Your task to perform on an android device: open app "Mercado Libre" (install if not already installed) and enter user name: "tolerating@yahoo.com" and password: "Kepler" Image 0: 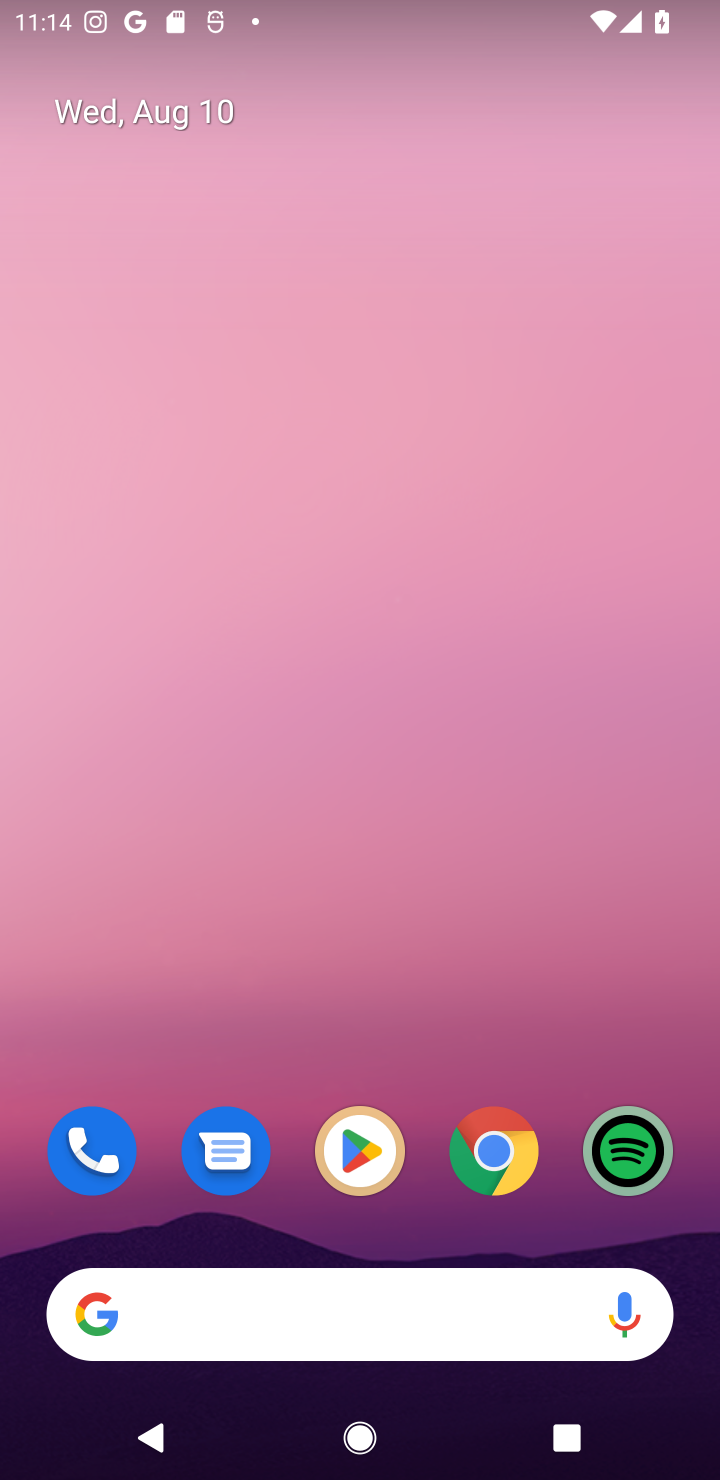
Step 0: click (373, 1179)
Your task to perform on an android device: open app "Mercado Libre" (install if not already installed) and enter user name: "tolerating@yahoo.com" and password: "Kepler" Image 1: 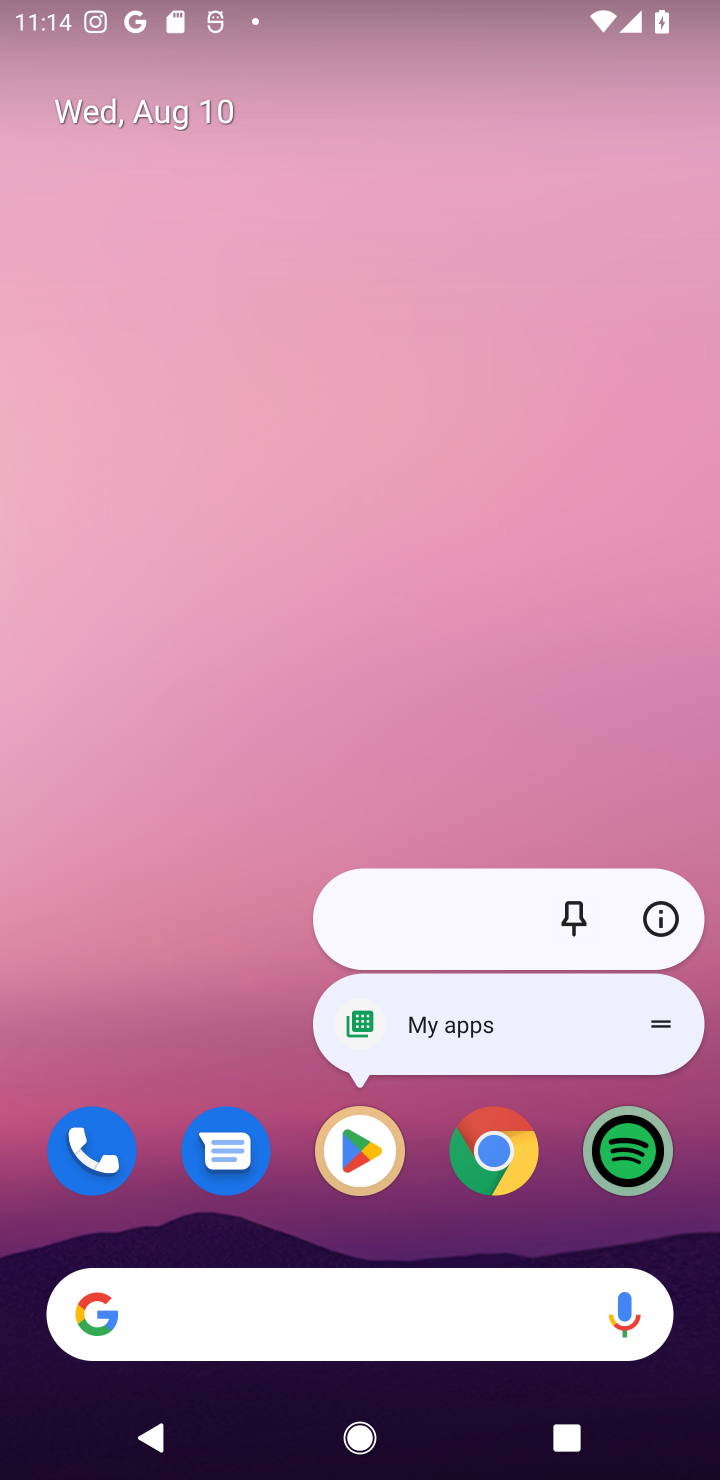
Step 1: click (361, 1156)
Your task to perform on an android device: open app "Mercado Libre" (install if not already installed) and enter user name: "tolerating@yahoo.com" and password: "Kepler" Image 2: 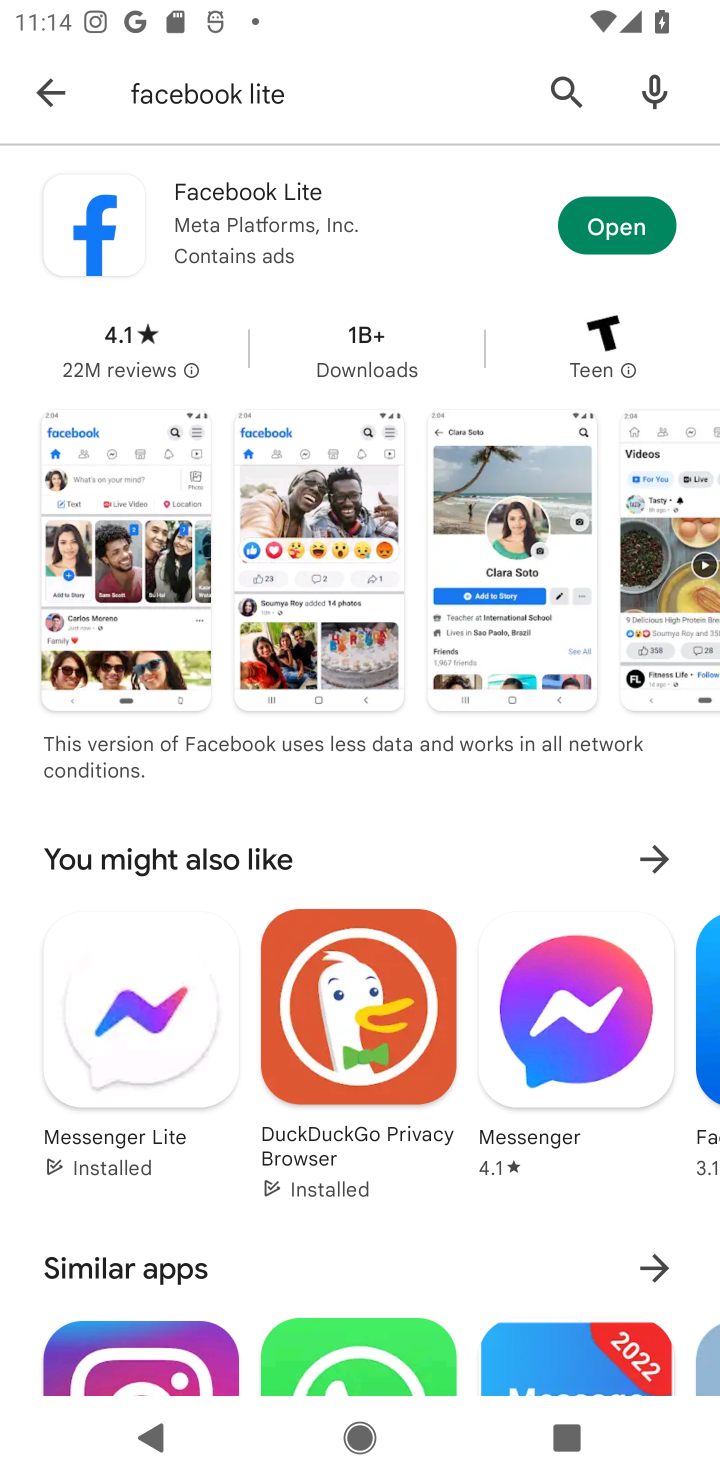
Step 2: click (580, 103)
Your task to perform on an android device: open app "Mercado Libre" (install if not already installed) and enter user name: "tolerating@yahoo.com" and password: "Kepler" Image 3: 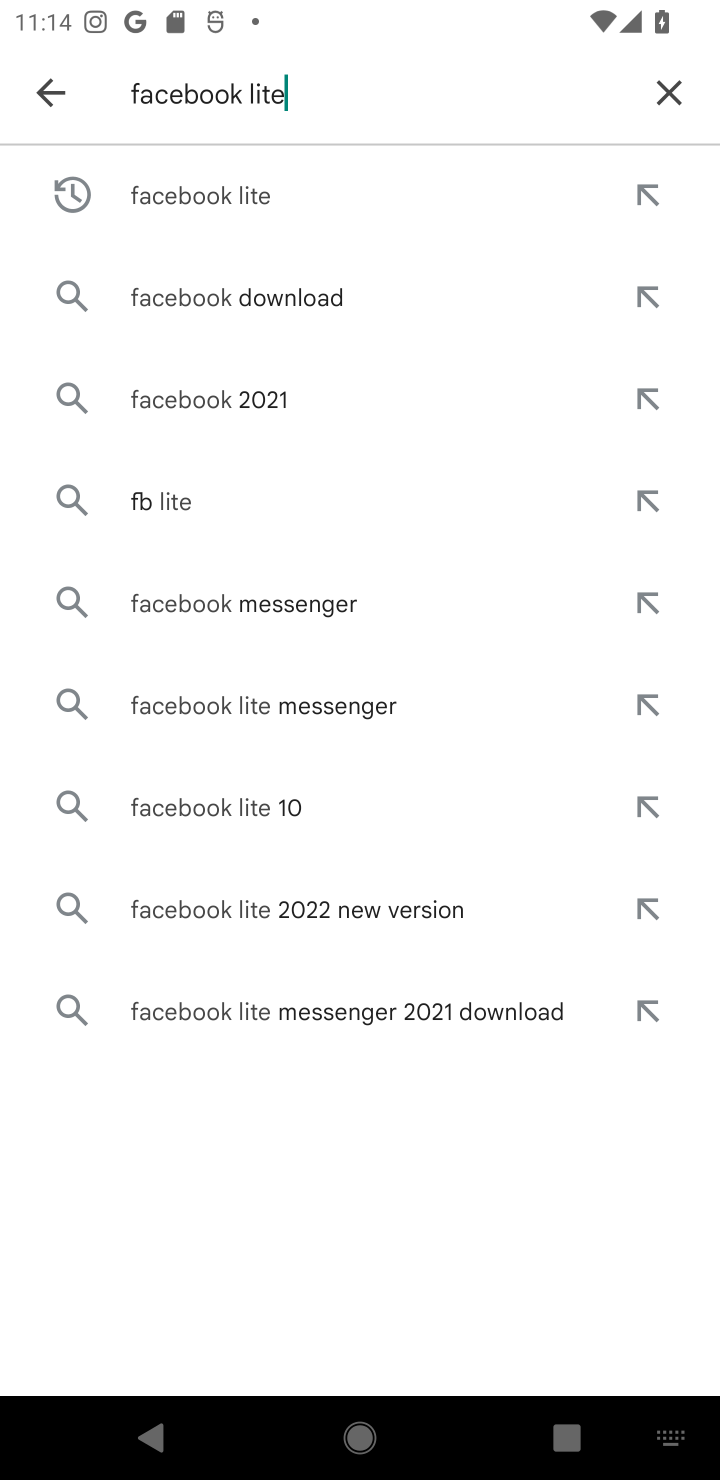
Step 3: click (667, 87)
Your task to perform on an android device: open app "Mercado Libre" (install if not already installed) and enter user name: "tolerating@yahoo.com" and password: "Kepler" Image 4: 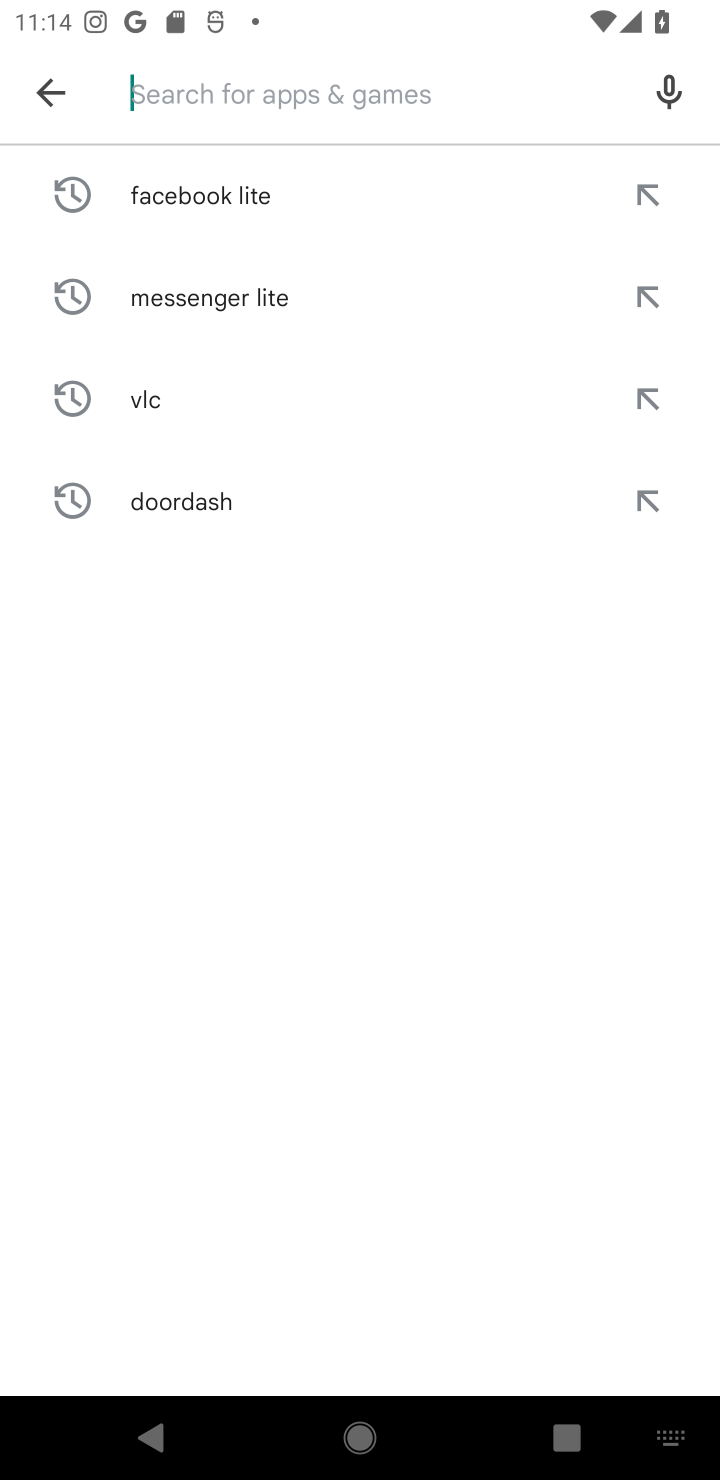
Step 4: click (390, 84)
Your task to perform on an android device: open app "Mercado Libre" (install if not already installed) and enter user name: "tolerating@yahoo.com" and password: "Kepler" Image 5: 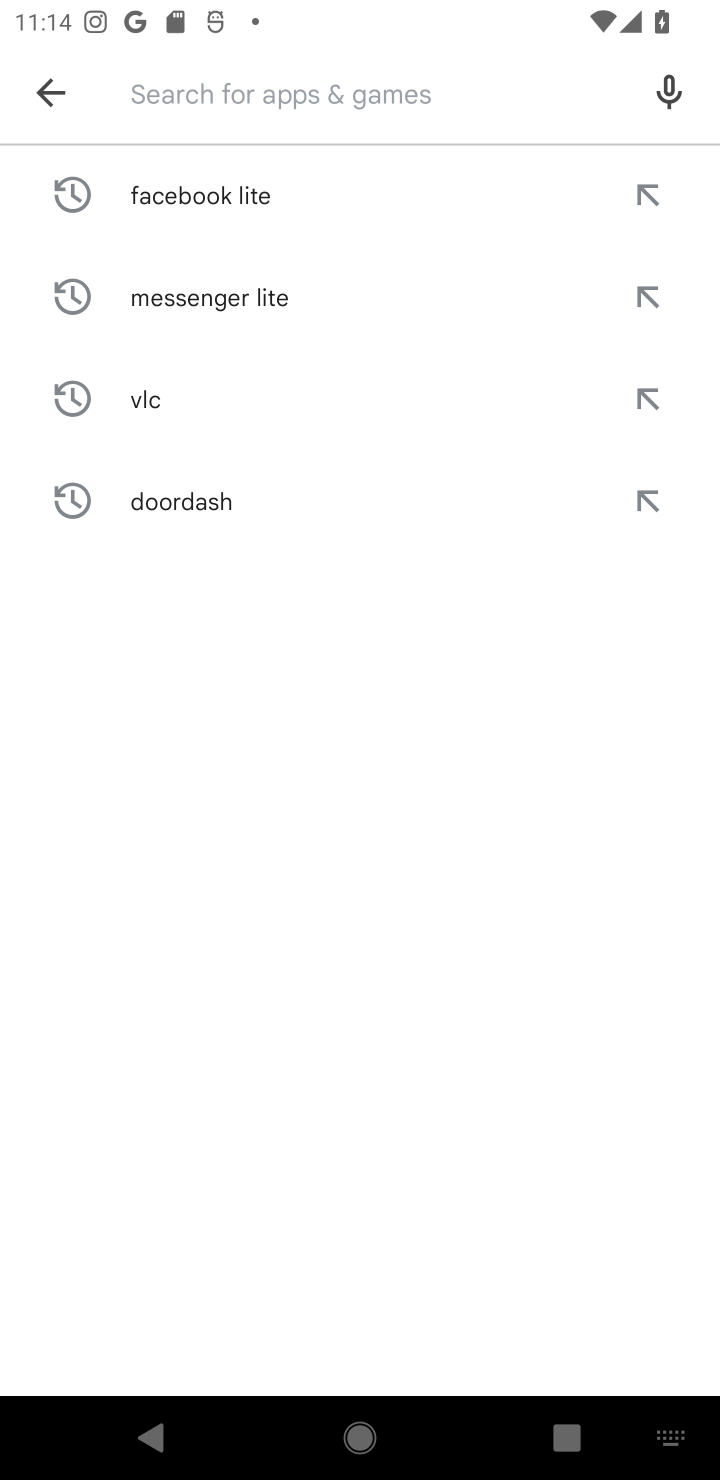
Step 5: click (225, 94)
Your task to perform on an android device: open app "Mercado Libre" (install if not already installed) and enter user name: "tolerating@yahoo.com" and password: "Kepler" Image 6: 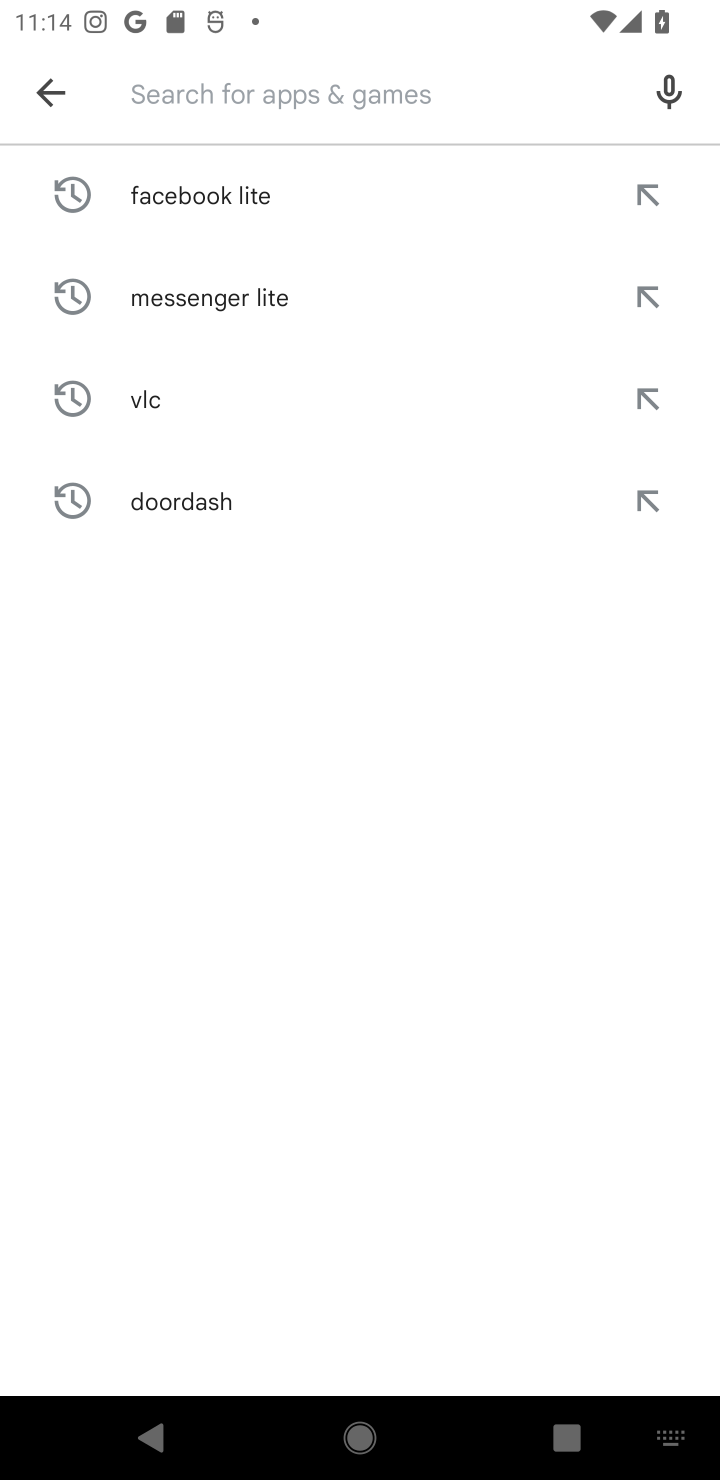
Step 6: type "Mercado Libre"
Your task to perform on an android device: open app "Mercado Libre" (install if not already installed) and enter user name: "tolerating@yahoo.com" and password: "Kepler" Image 7: 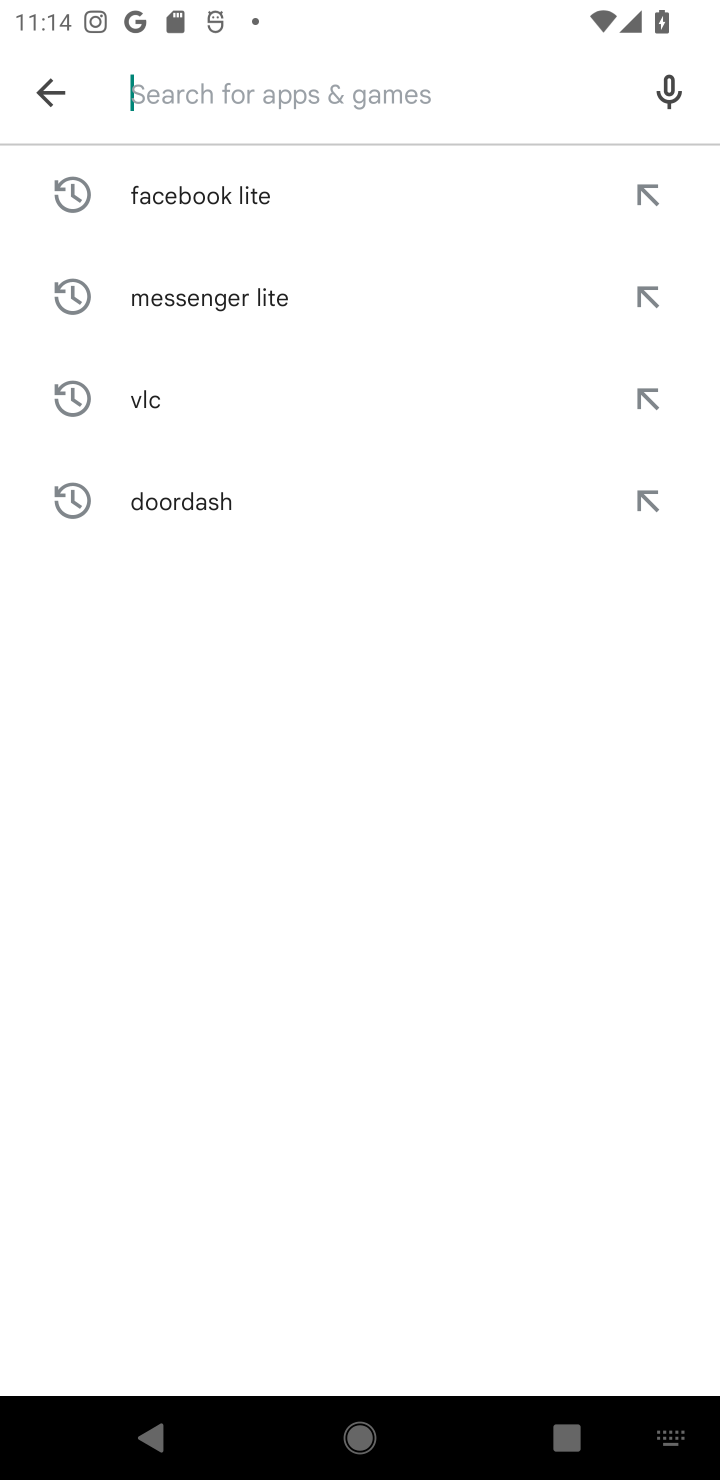
Step 7: click (157, 807)
Your task to perform on an android device: open app "Mercado Libre" (install if not already installed) and enter user name: "tolerating@yahoo.com" and password: "Kepler" Image 8: 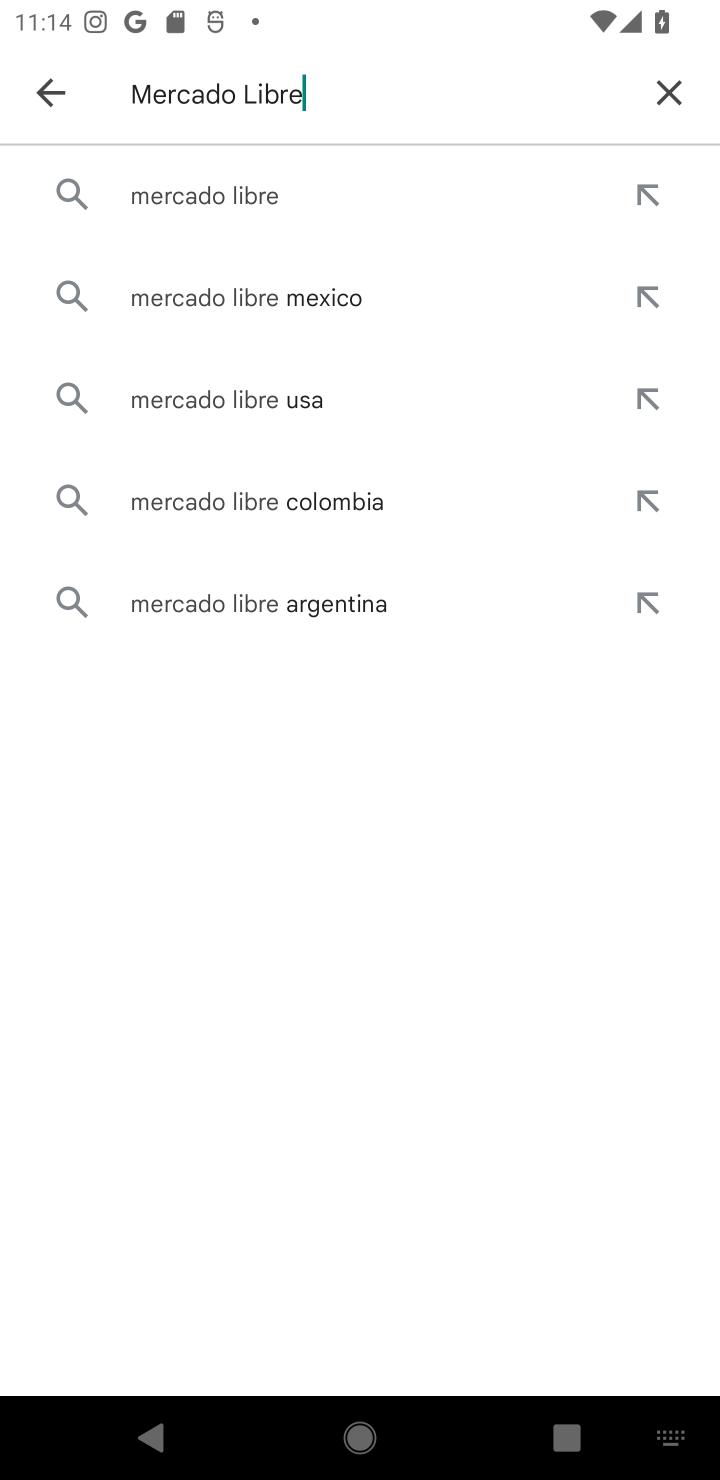
Step 8: click (265, 205)
Your task to perform on an android device: open app "Mercado Libre" (install if not already installed) and enter user name: "tolerating@yahoo.com" and password: "Kepler" Image 9: 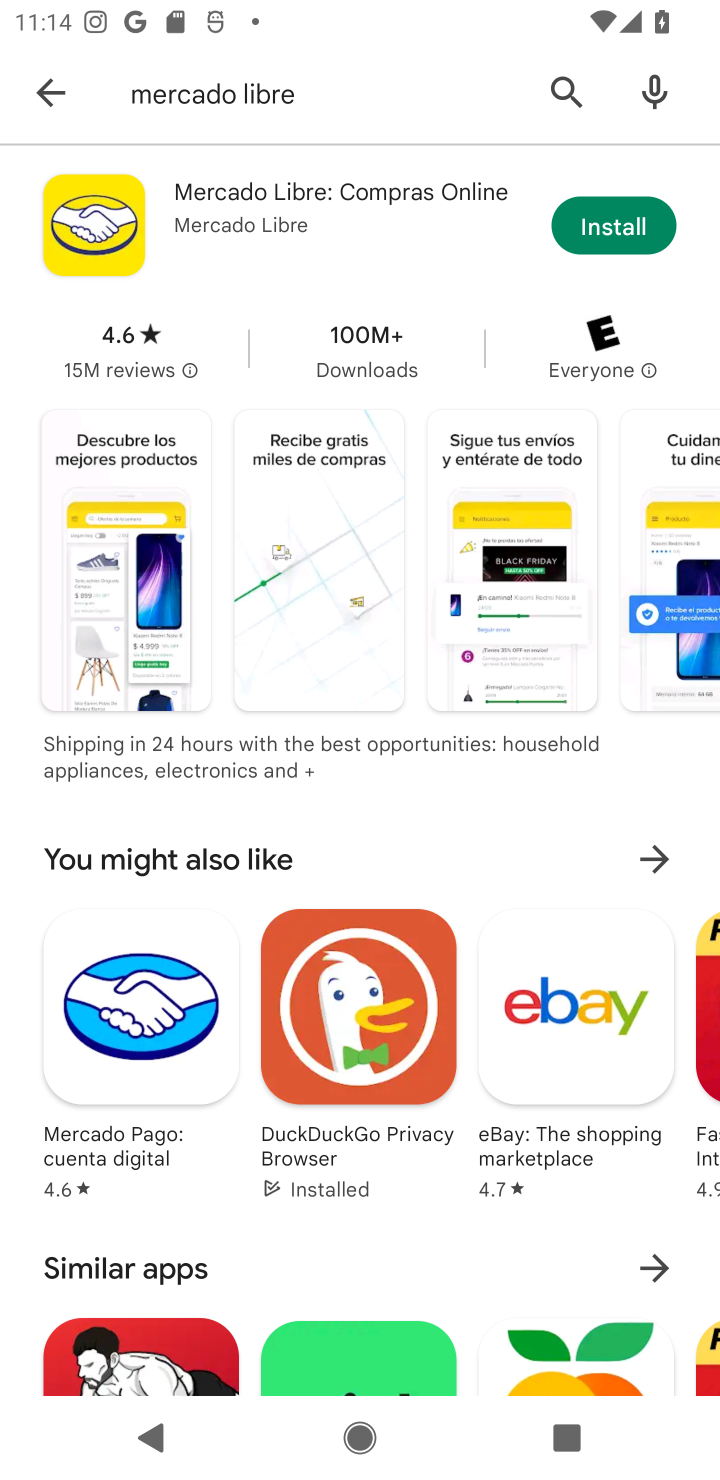
Step 9: click (580, 232)
Your task to perform on an android device: open app "Mercado Libre" (install if not already installed) and enter user name: "tolerating@yahoo.com" and password: "Kepler" Image 10: 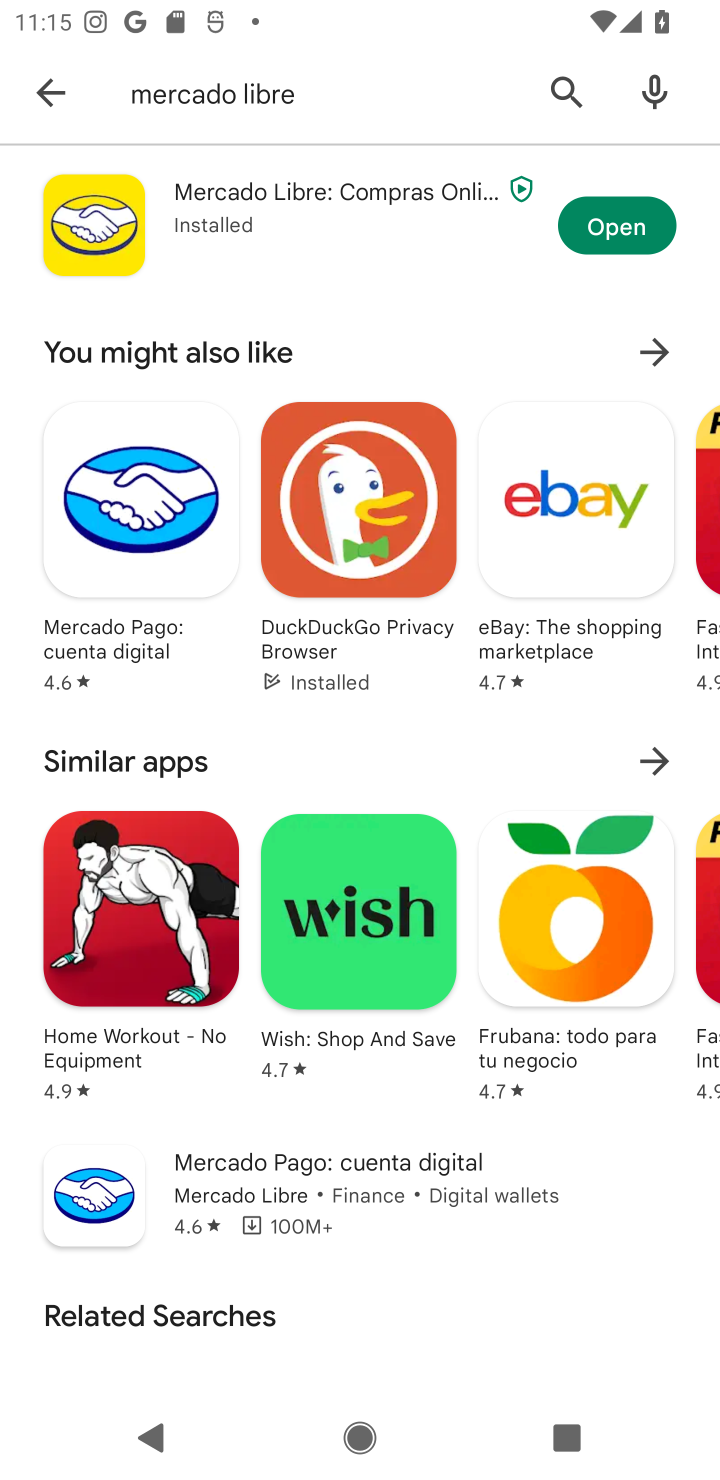
Step 10: click (644, 210)
Your task to perform on an android device: open app "Mercado Libre" (install if not already installed) and enter user name: "tolerating@yahoo.com" and password: "Kepler" Image 11: 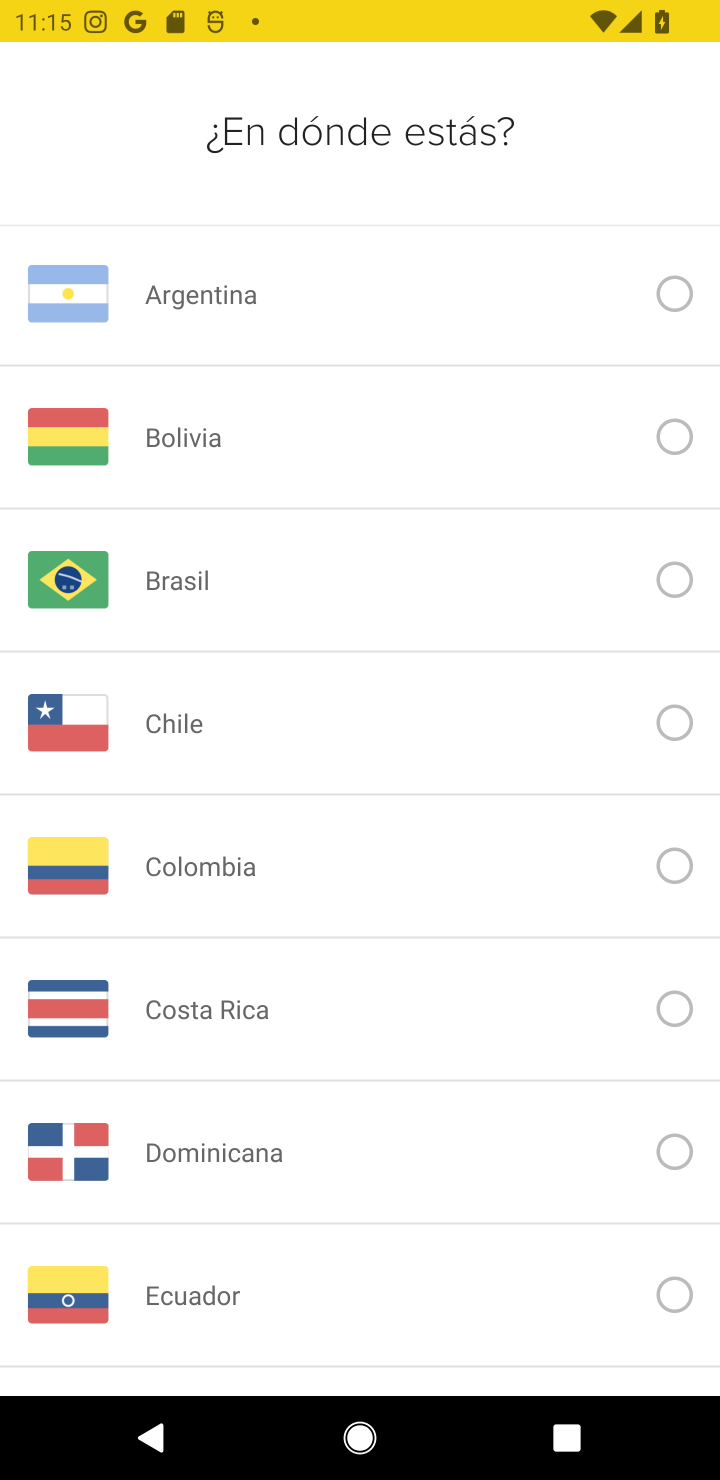
Step 11: drag from (340, 1268) to (565, 12)
Your task to perform on an android device: open app "Mercado Libre" (install if not already installed) and enter user name: "tolerating@yahoo.com" and password: "Kepler" Image 12: 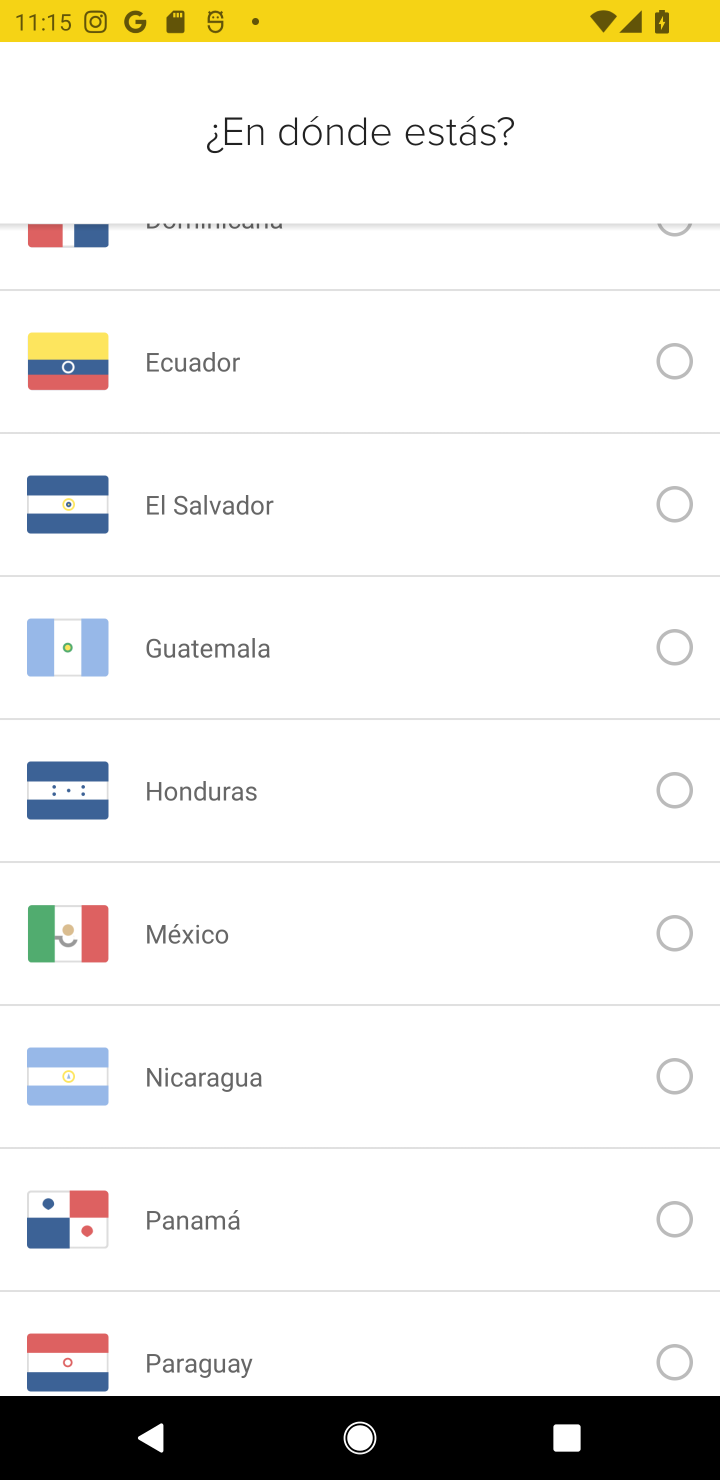
Step 12: drag from (281, 1352) to (488, 84)
Your task to perform on an android device: open app "Mercado Libre" (install if not already installed) and enter user name: "tolerating@yahoo.com" and password: "Kepler" Image 13: 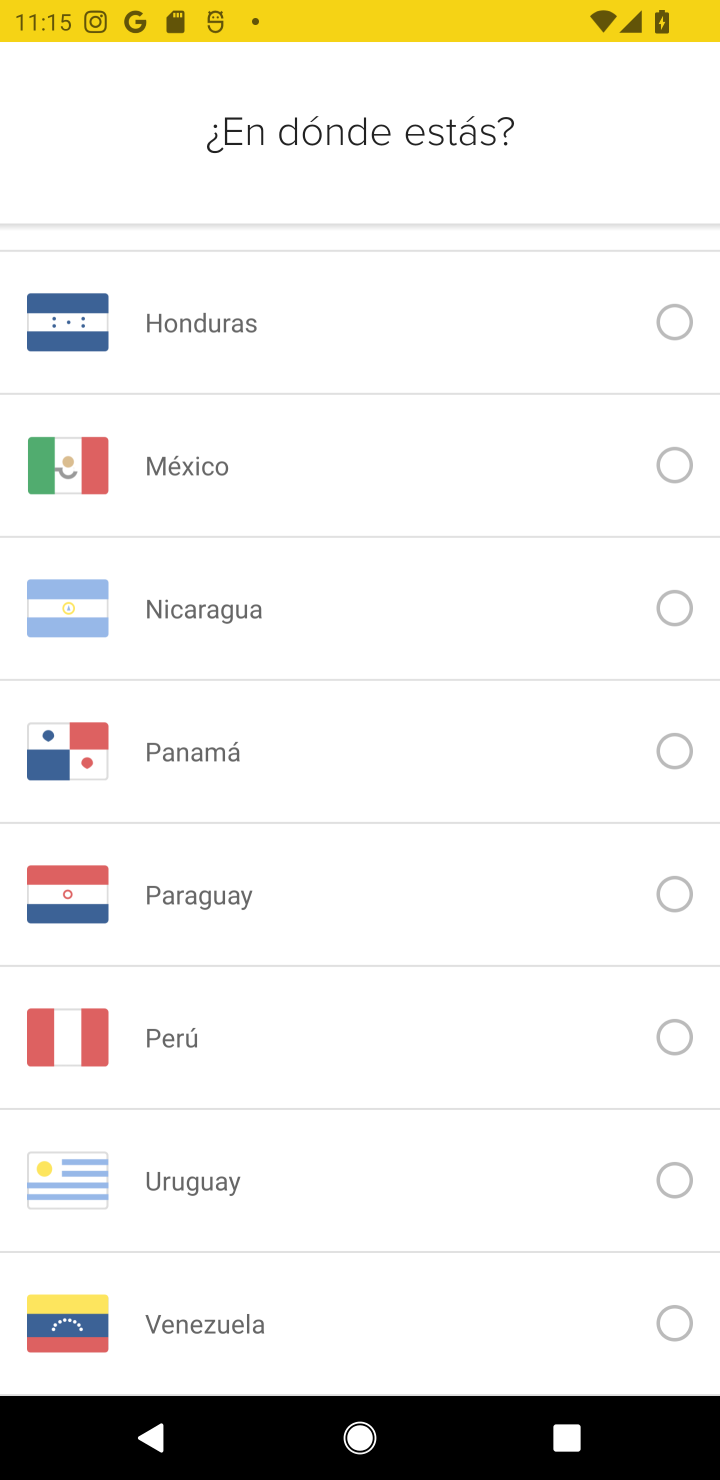
Step 13: drag from (290, 1273) to (262, 1376)
Your task to perform on an android device: open app "Mercado Libre" (install if not already installed) and enter user name: "tolerating@yahoo.com" and password: "Kepler" Image 14: 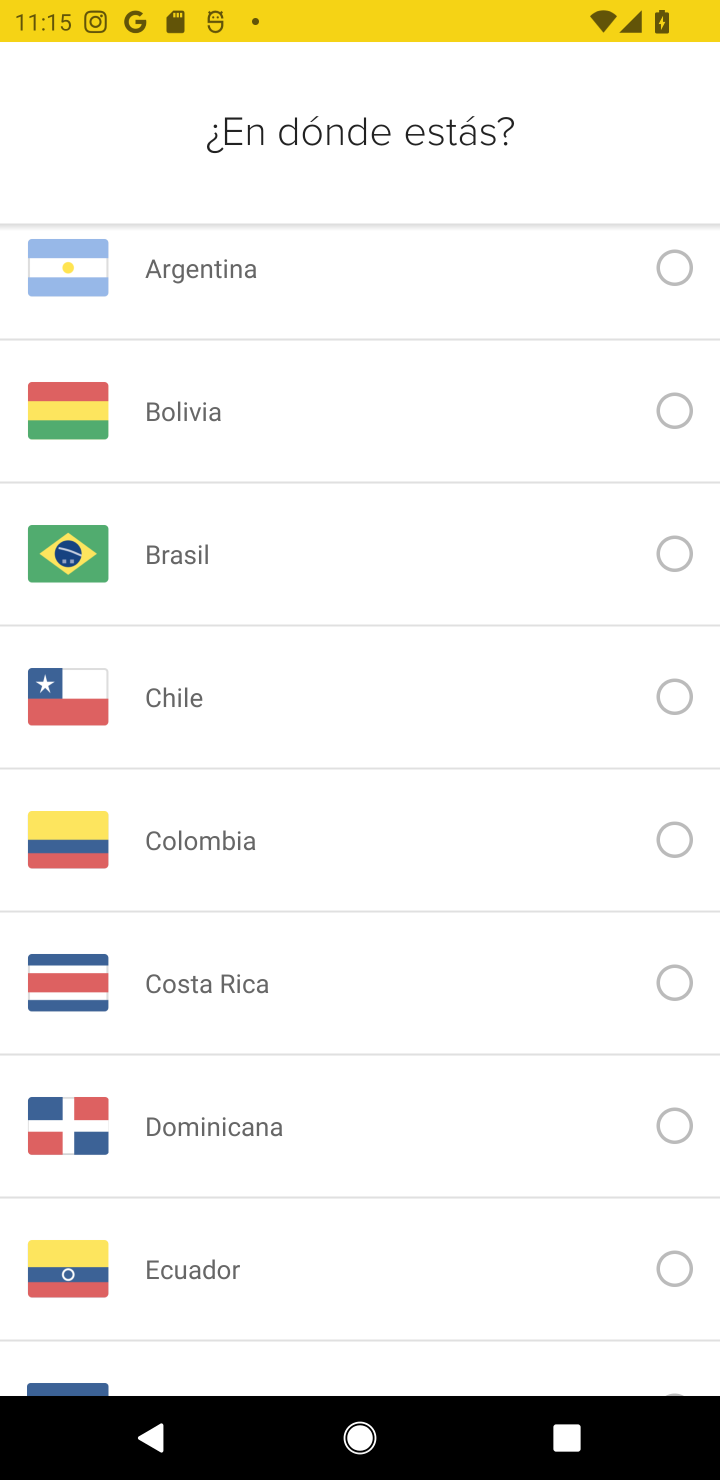
Step 14: drag from (338, 593) to (261, 1385)
Your task to perform on an android device: open app "Mercado Libre" (install if not already installed) and enter user name: "tolerating@yahoo.com" and password: "Kepler" Image 15: 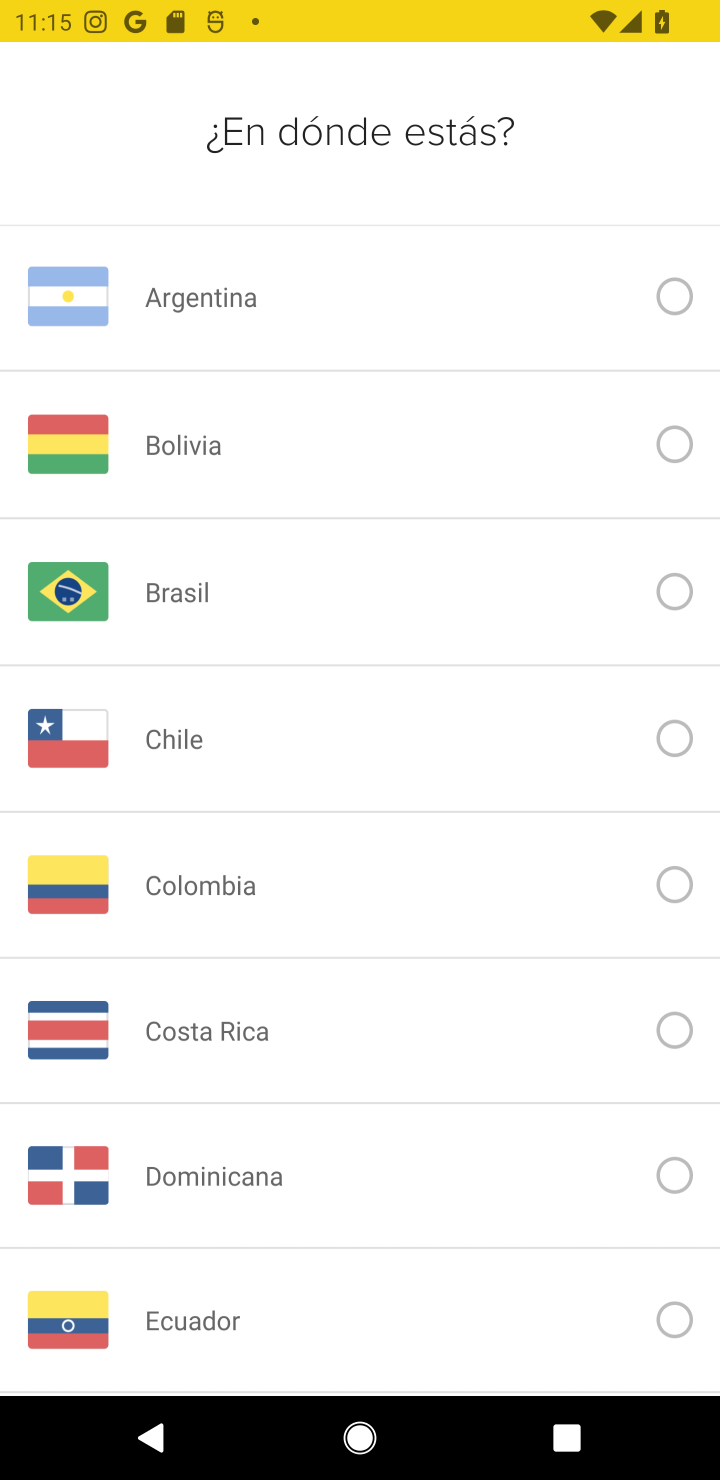
Step 15: drag from (454, 351) to (352, 930)
Your task to perform on an android device: open app "Mercado Libre" (install if not already installed) and enter user name: "tolerating@yahoo.com" and password: "Kepler" Image 16: 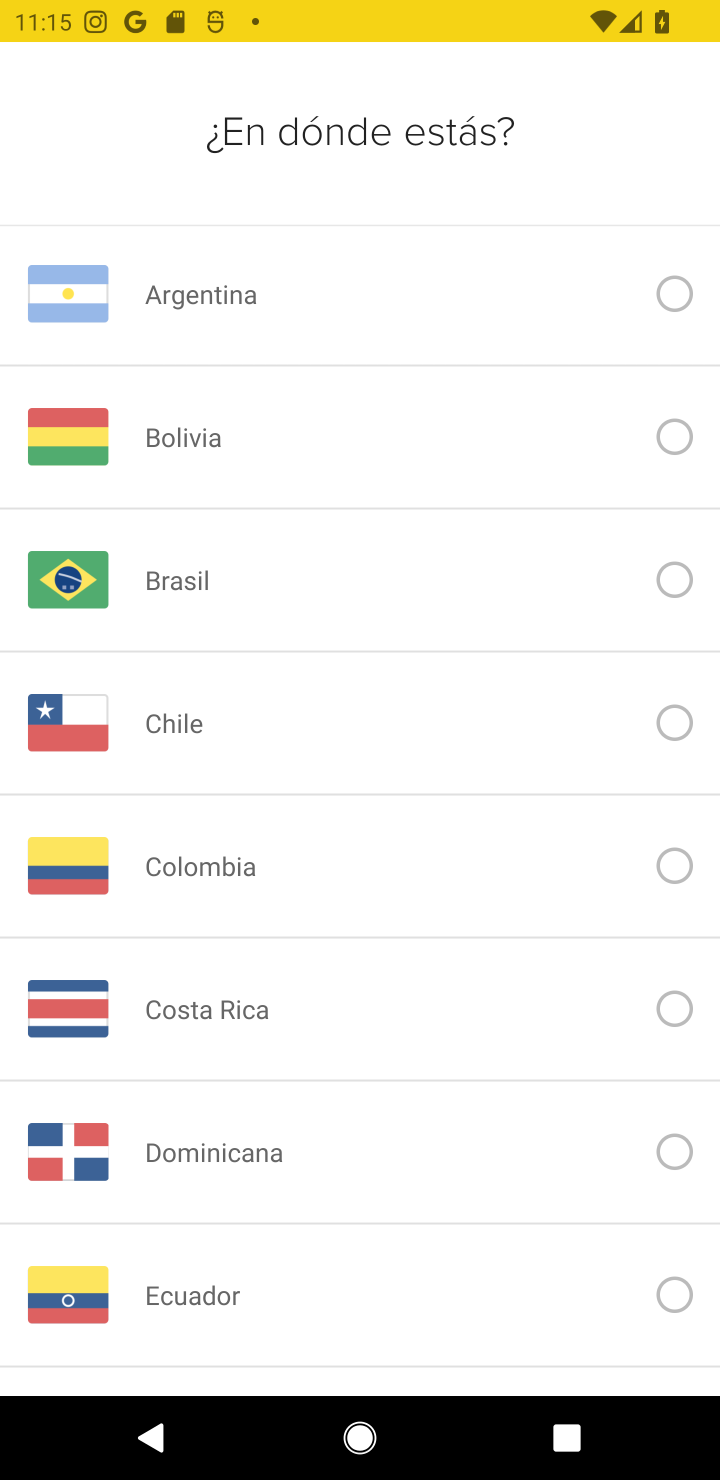
Step 16: drag from (370, 486) to (239, 1330)
Your task to perform on an android device: open app "Mercado Libre" (install if not already installed) and enter user name: "tolerating@yahoo.com" and password: "Kepler" Image 17: 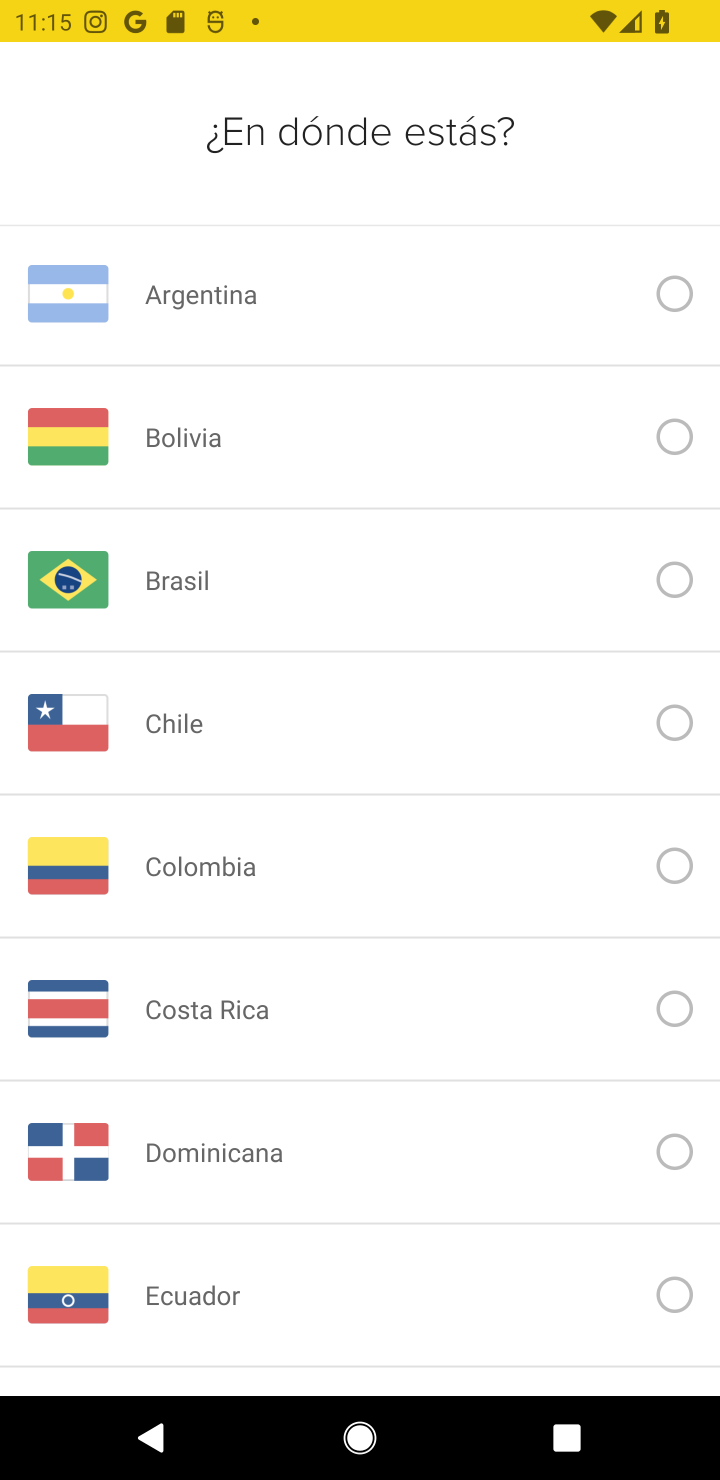
Step 17: drag from (415, 352) to (406, 1458)
Your task to perform on an android device: open app "Mercado Libre" (install if not already installed) and enter user name: "tolerating@yahoo.com" and password: "Kepler" Image 18: 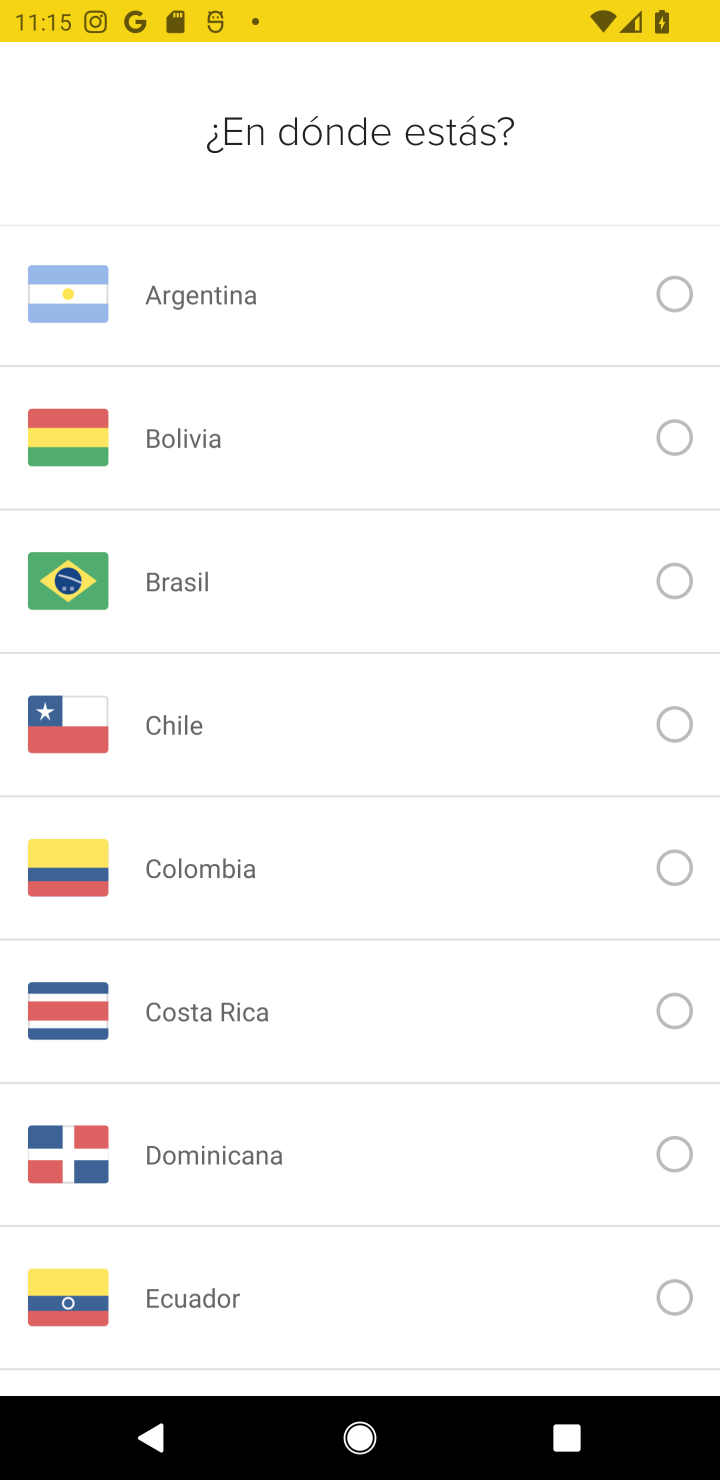
Step 18: click (645, 288)
Your task to perform on an android device: open app "Mercado Libre" (install if not already installed) and enter user name: "tolerating@yahoo.com" and password: "Kepler" Image 19: 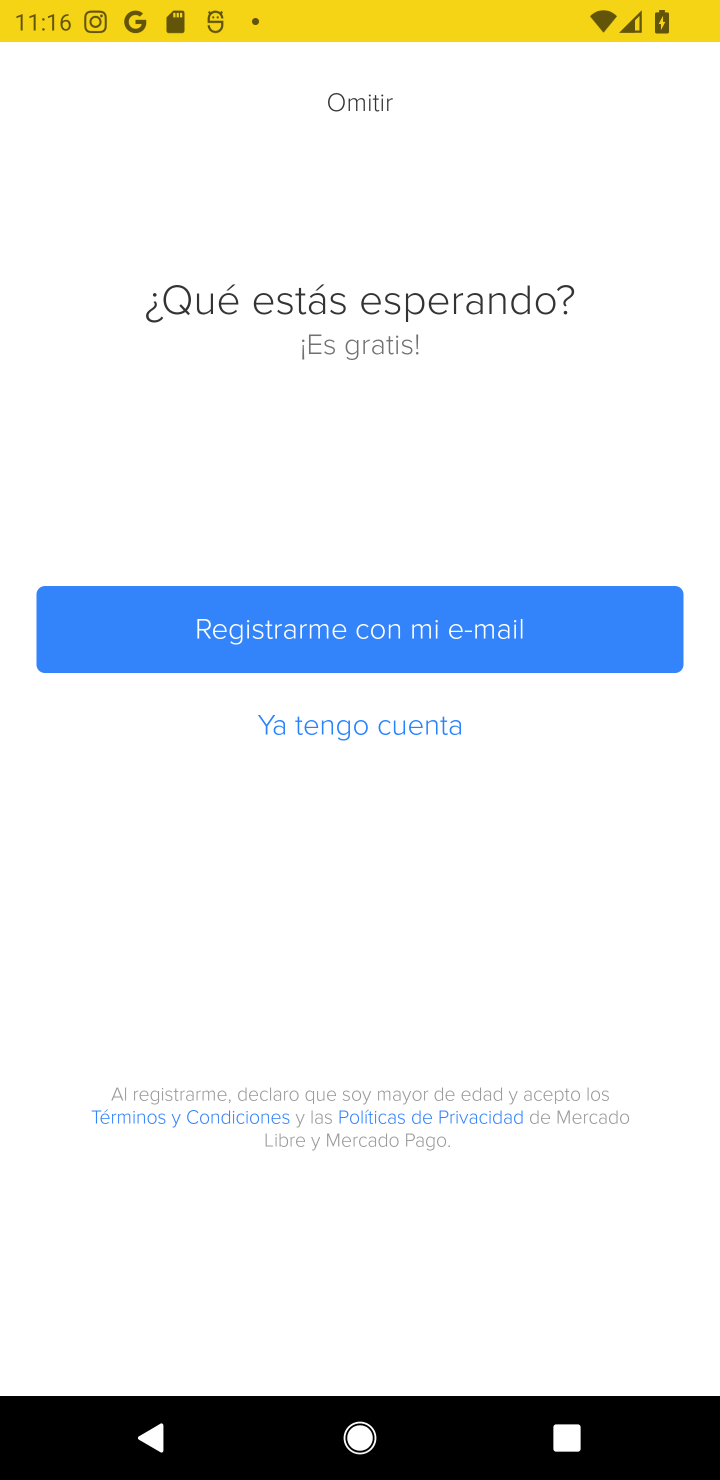
Step 19: task complete